Your task to perform on an android device: check android version Image 0: 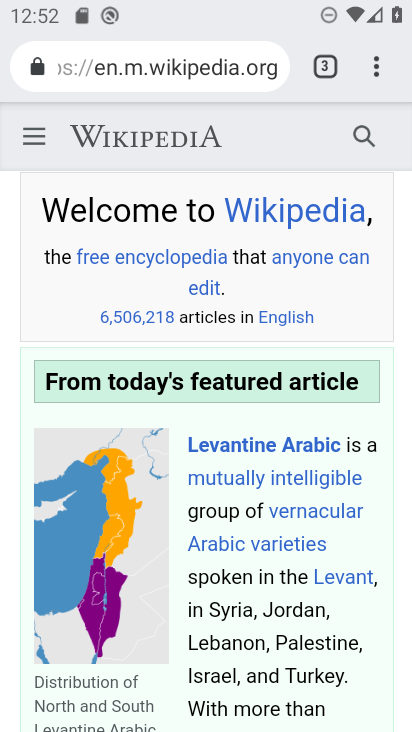
Step 0: press home button
Your task to perform on an android device: check android version Image 1: 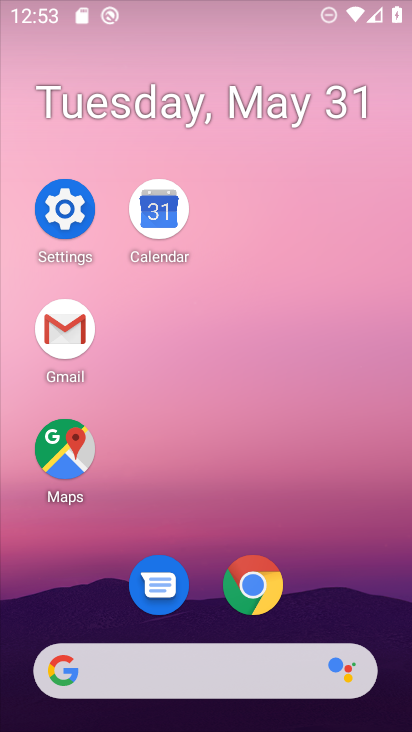
Step 1: click (72, 204)
Your task to perform on an android device: check android version Image 2: 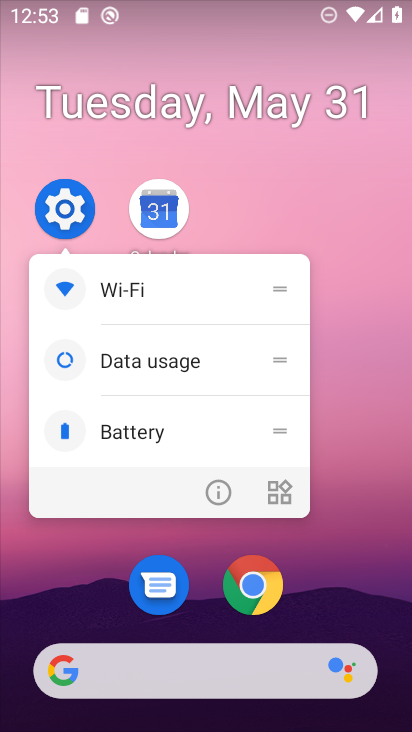
Step 2: click (75, 210)
Your task to perform on an android device: check android version Image 3: 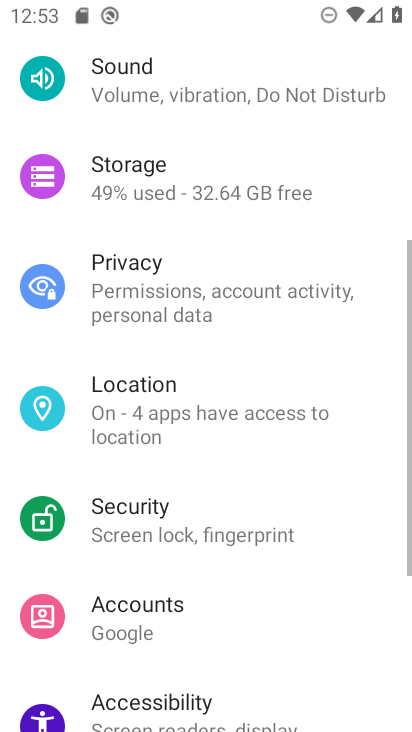
Step 3: drag from (183, 624) to (198, 210)
Your task to perform on an android device: check android version Image 4: 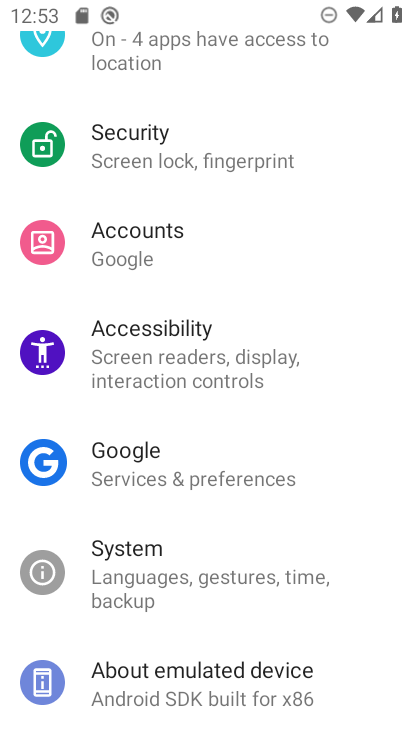
Step 4: drag from (212, 565) to (208, 145)
Your task to perform on an android device: check android version Image 5: 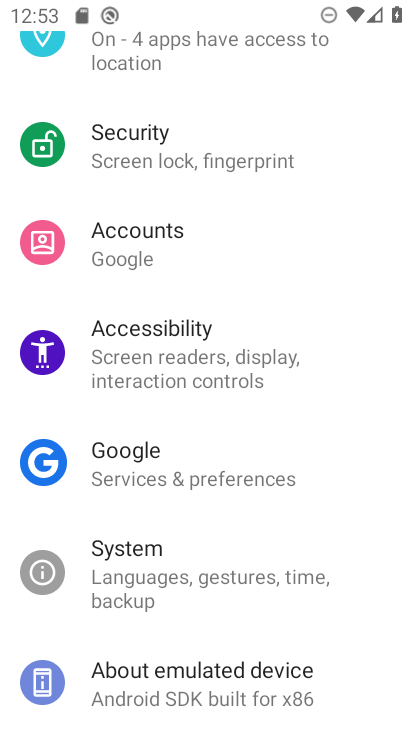
Step 5: click (217, 685)
Your task to perform on an android device: check android version Image 6: 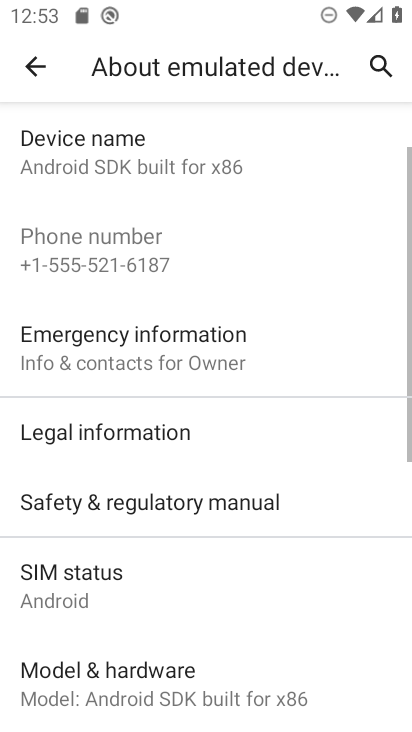
Step 6: drag from (228, 545) to (251, 198)
Your task to perform on an android device: check android version Image 7: 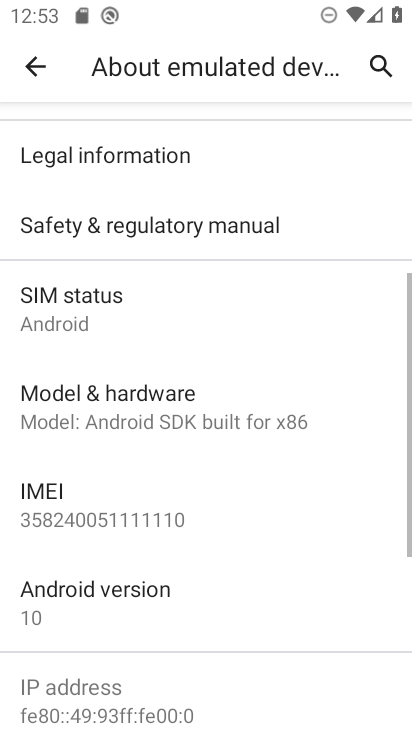
Step 7: click (212, 583)
Your task to perform on an android device: check android version Image 8: 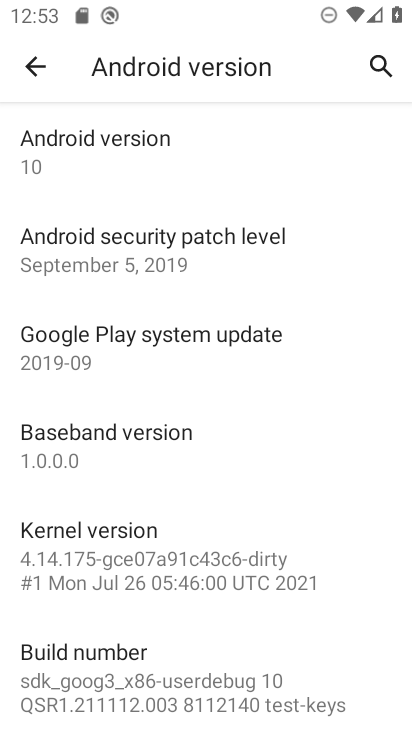
Step 8: task complete